Your task to perform on an android device: open app "Skype" (install if not already installed) Image 0: 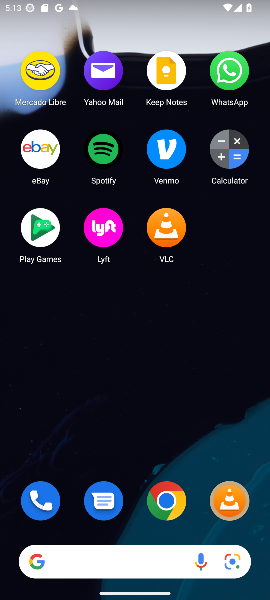
Step 0: press home button
Your task to perform on an android device: open app "Skype" (install if not already installed) Image 1: 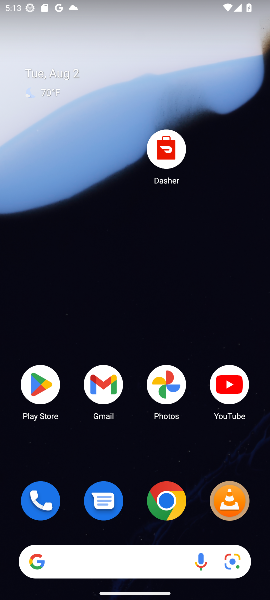
Step 1: click (30, 379)
Your task to perform on an android device: open app "Skype" (install if not already installed) Image 2: 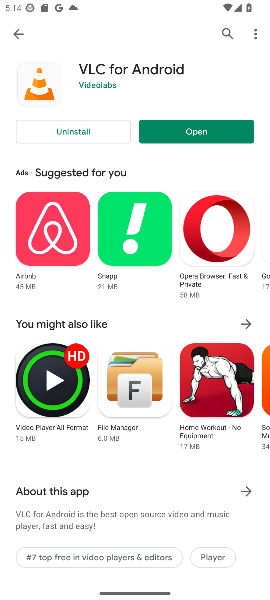
Step 2: click (226, 31)
Your task to perform on an android device: open app "Skype" (install if not already installed) Image 3: 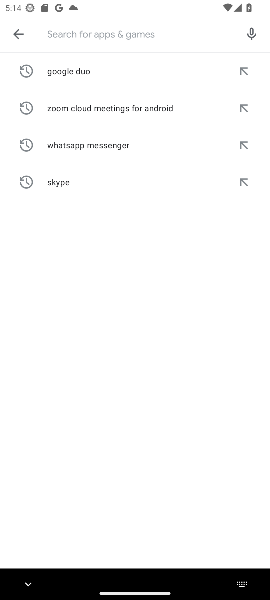
Step 3: type "Skype"
Your task to perform on an android device: open app "Skype" (install if not already installed) Image 4: 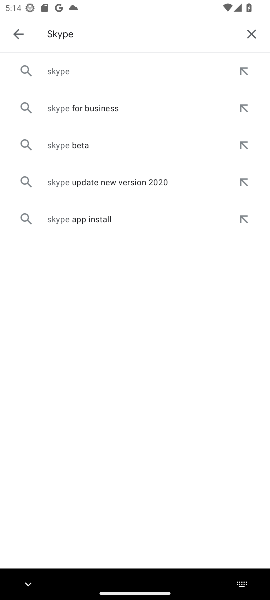
Step 4: click (55, 73)
Your task to perform on an android device: open app "Skype" (install if not already installed) Image 5: 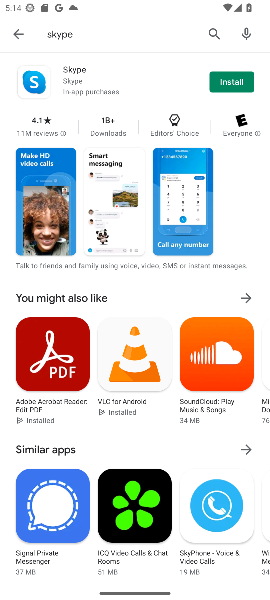
Step 5: click (219, 84)
Your task to perform on an android device: open app "Skype" (install if not already installed) Image 6: 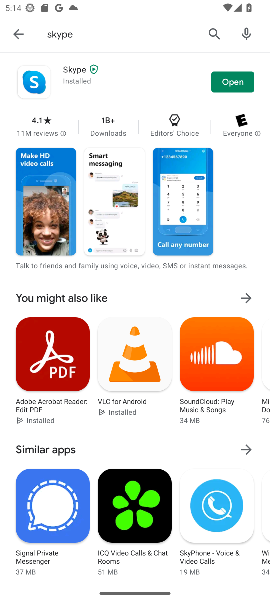
Step 6: click (219, 84)
Your task to perform on an android device: open app "Skype" (install if not already installed) Image 7: 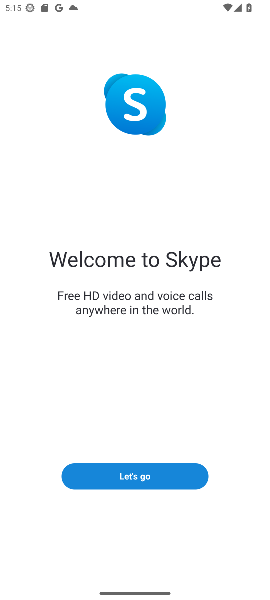
Step 7: task complete